Your task to perform on an android device: Open eBay Image 0: 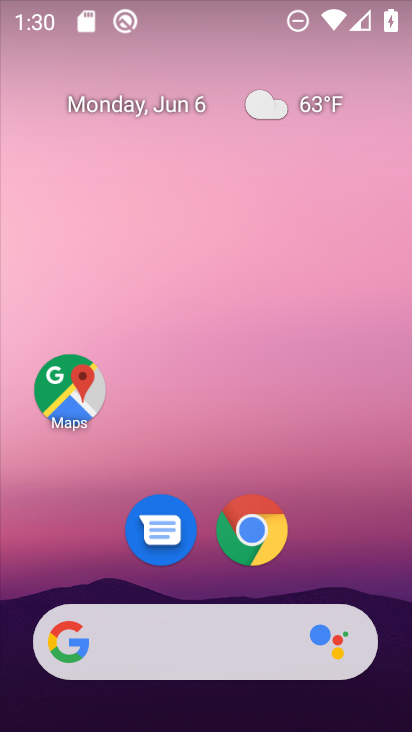
Step 0: click (253, 531)
Your task to perform on an android device: Open eBay Image 1: 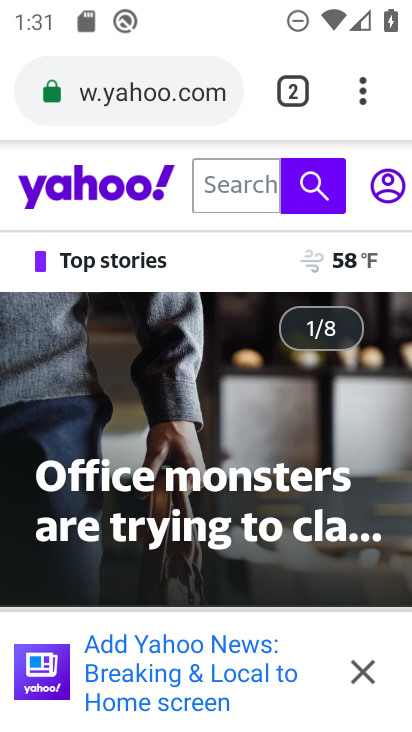
Step 1: click (206, 99)
Your task to perform on an android device: Open eBay Image 2: 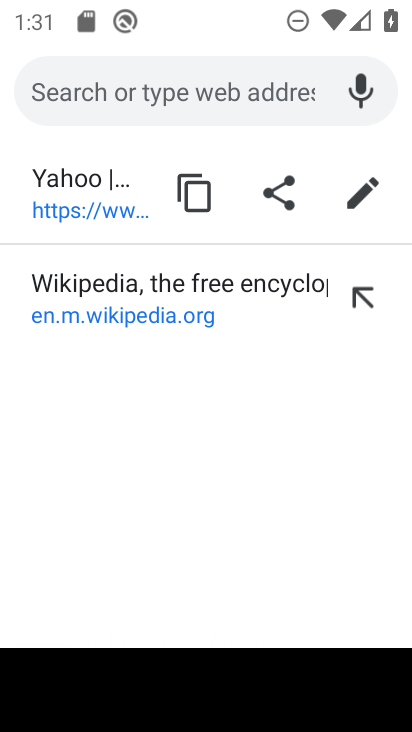
Step 2: click (214, 93)
Your task to perform on an android device: Open eBay Image 3: 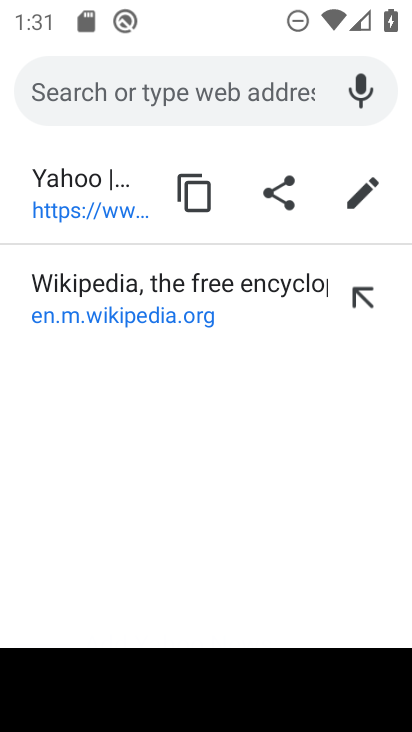
Step 3: type "eBay"
Your task to perform on an android device: Open eBay Image 4: 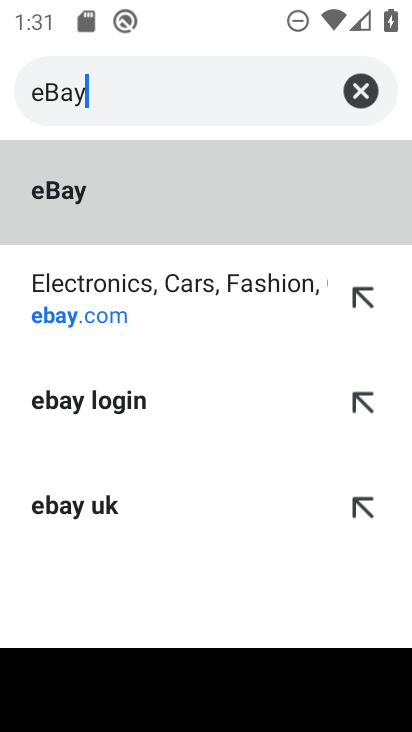
Step 4: click (284, 202)
Your task to perform on an android device: Open eBay Image 5: 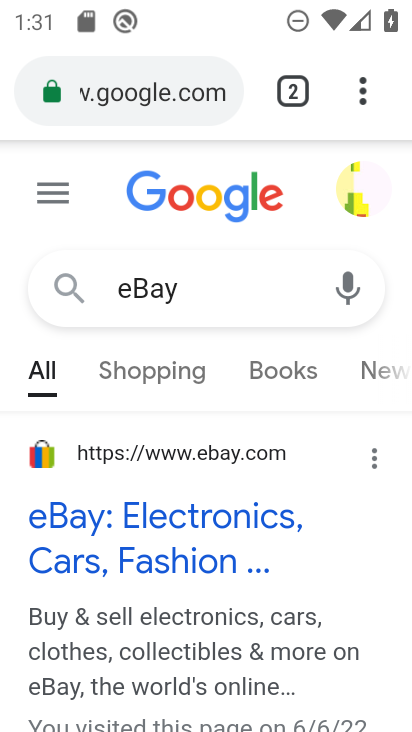
Step 5: click (185, 512)
Your task to perform on an android device: Open eBay Image 6: 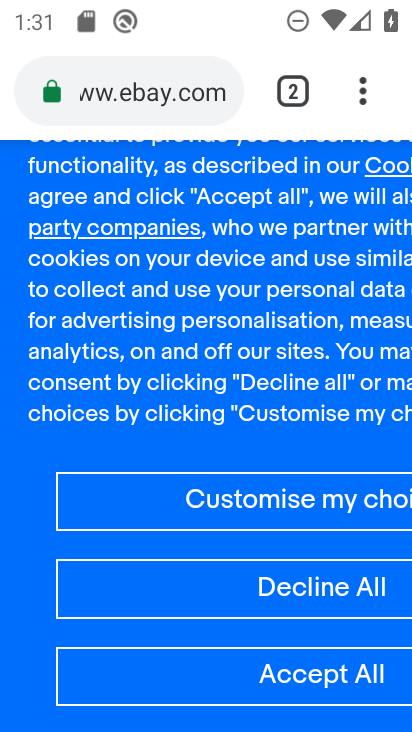
Step 6: task complete